Your task to perform on an android device: open chrome and create a bookmark for the current page Image 0: 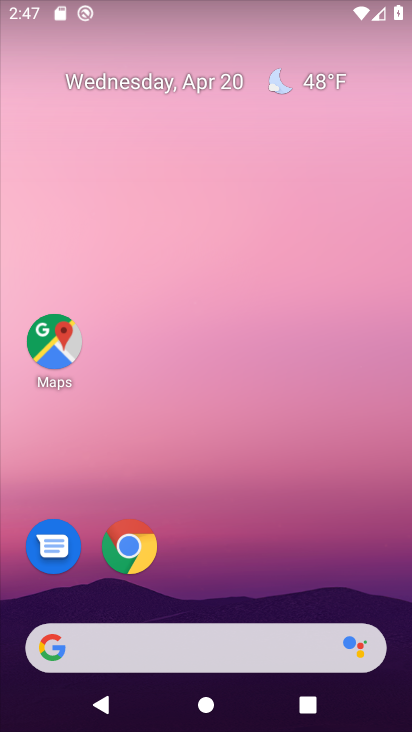
Step 0: click (283, 297)
Your task to perform on an android device: open chrome and create a bookmark for the current page Image 1: 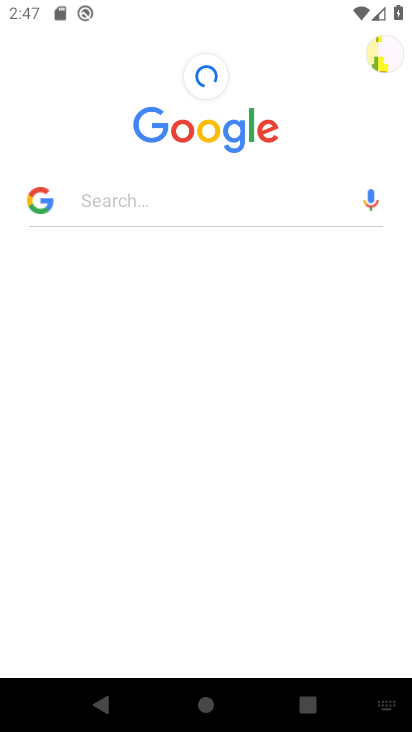
Step 1: press home button
Your task to perform on an android device: open chrome and create a bookmark for the current page Image 2: 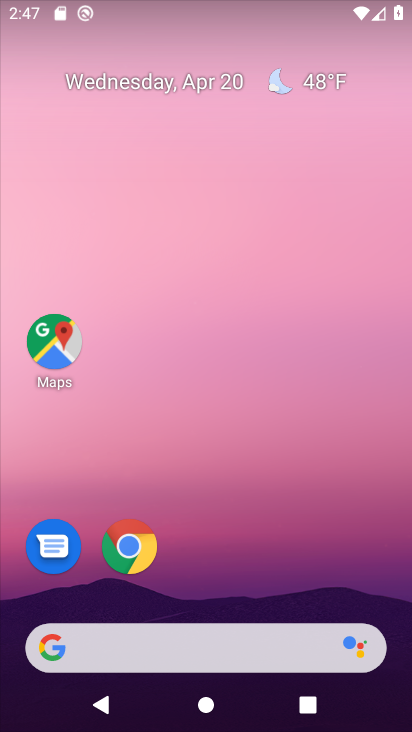
Step 2: drag from (203, 514) to (228, 341)
Your task to perform on an android device: open chrome and create a bookmark for the current page Image 3: 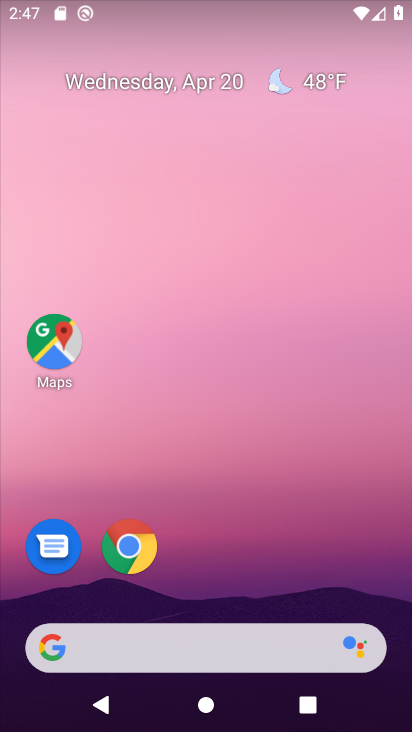
Step 3: drag from (269, 411) to (269, 345)
Your task to perform on an android device: open chrome and create a bookmark for the current page Image 4: 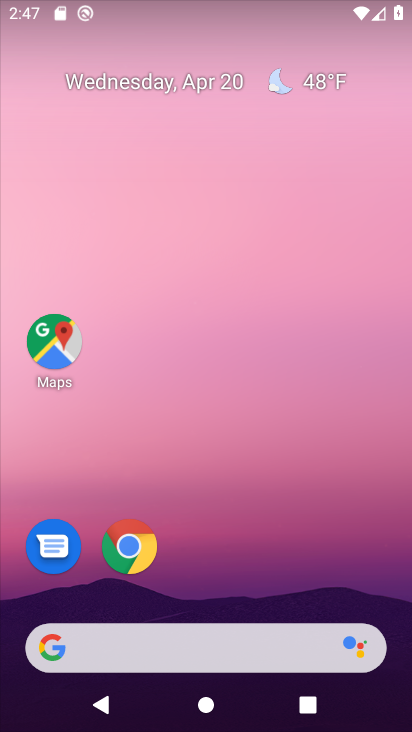
Step 4: drag from (228, 547) to (277, 224)
Your task to perform on an android device: open chrome and create a bookmark for the current page Image 5: 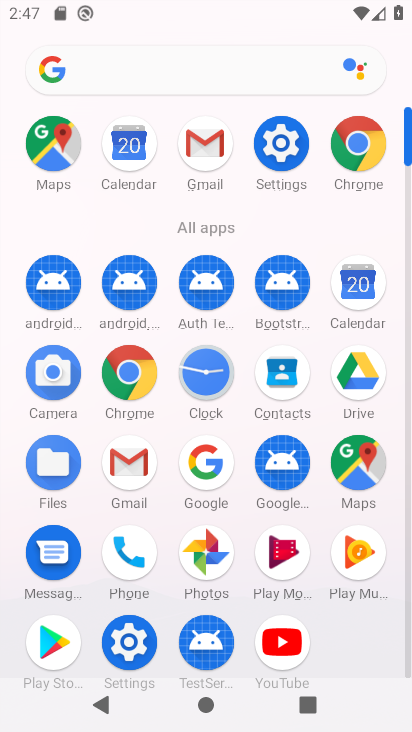
Step 5: click (348, 147)
Your task to perform on an android device: open chrome and create a bookmark for the current page Image 6: 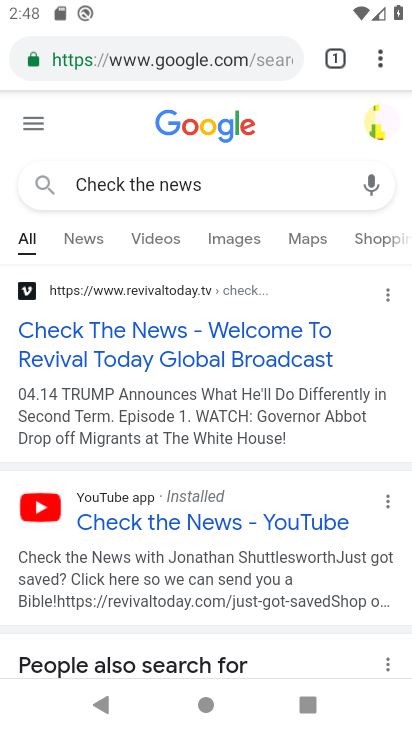
Step 6: click (370, 57)
Your task to perform on an android device: open chrome and create a bookmark for the current page Image 7: 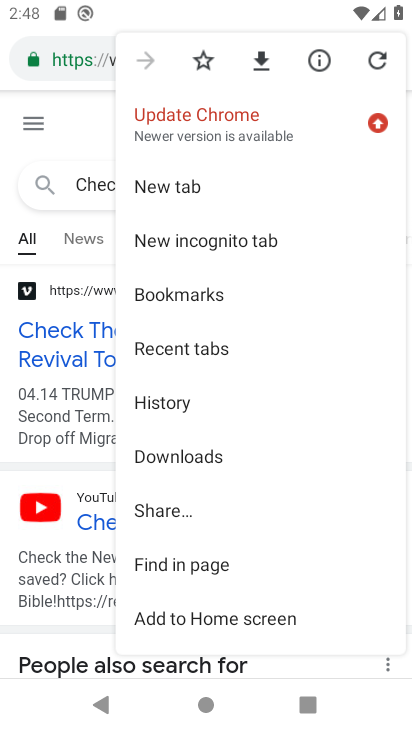
Step 7: click (205, 53)
Your task to perform on an android device: open chrome and create a bookmark for the current page Image 8: 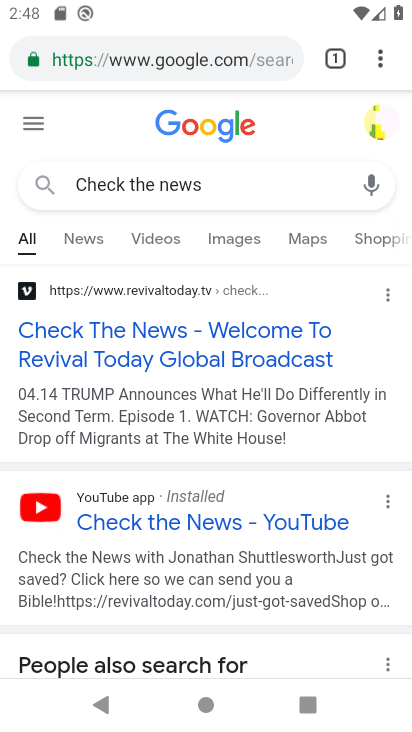
Step 8: click (371, 52)
Your task to perform on an android device: open chrome and create a bookmark for the current page Image 9: 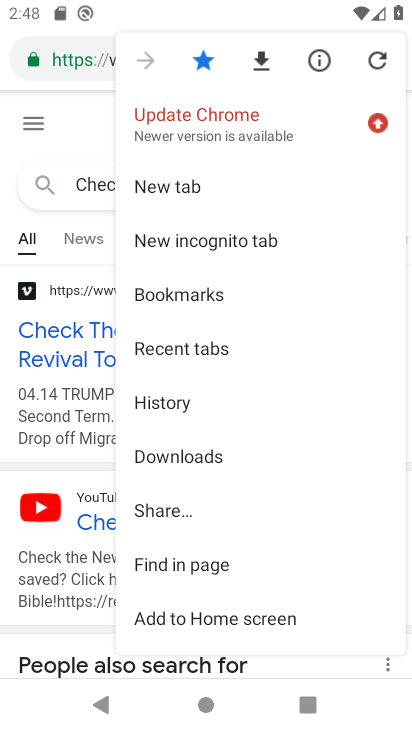
Step 9: task complete